Your task to perform on an android device: Open maps Image 0: 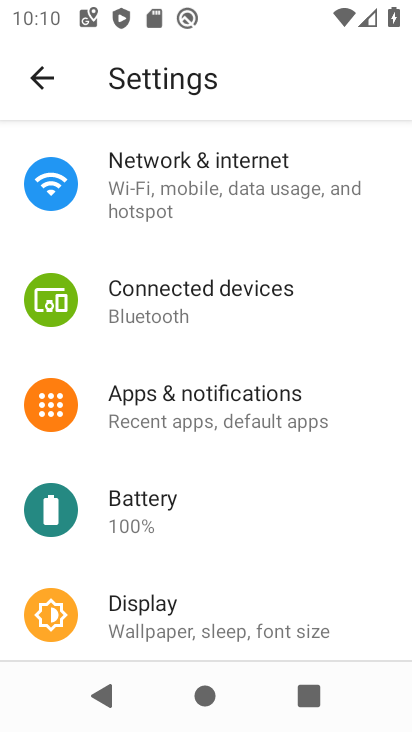
Step 0: press home button
Your task to perform on an android device: Open maps Image 1: 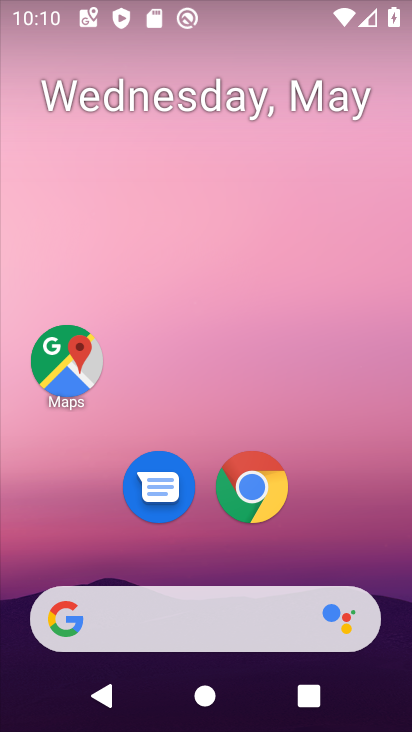
Step 1: drag from (225, 579) to (409, 582)
Your task to perform on an android device: Open maps Image 2: 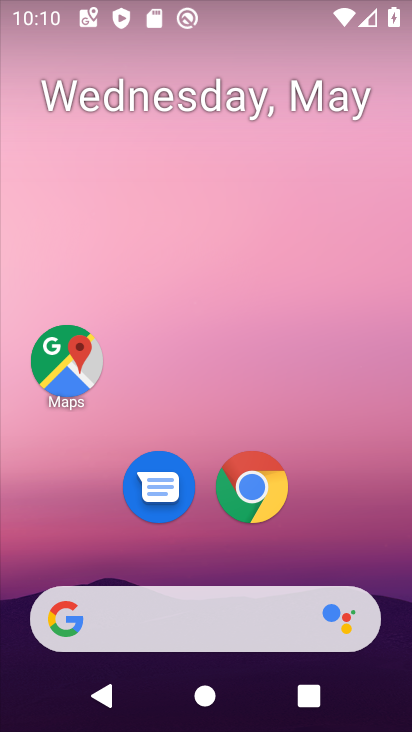
Step 2: click (259, 597)
Your task to perform on an android device: Open maps Image 3: 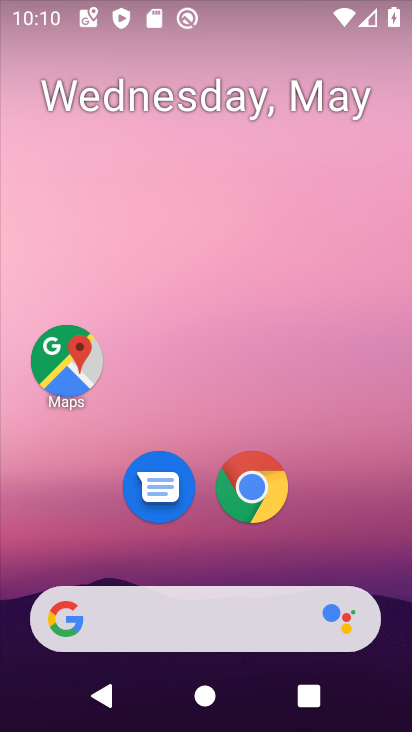
Step 3: drag from (259, 588) to (214, 42)
Your task to perform on an android device: Open maps Image 4: 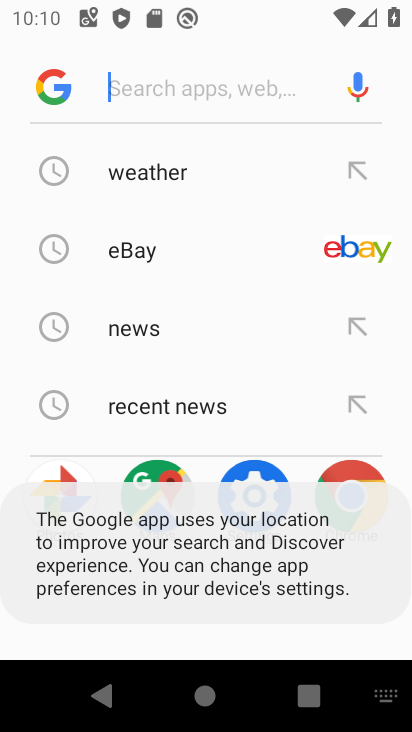
Step 4: press home button
Your task to perform on an android device: Open maps Image 5: 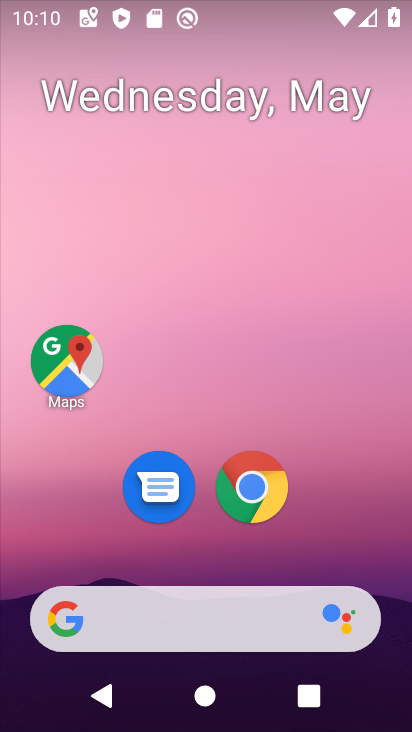
Step 5: click (57, 344)
Your task to perform on an android device: Open maps Image 6: 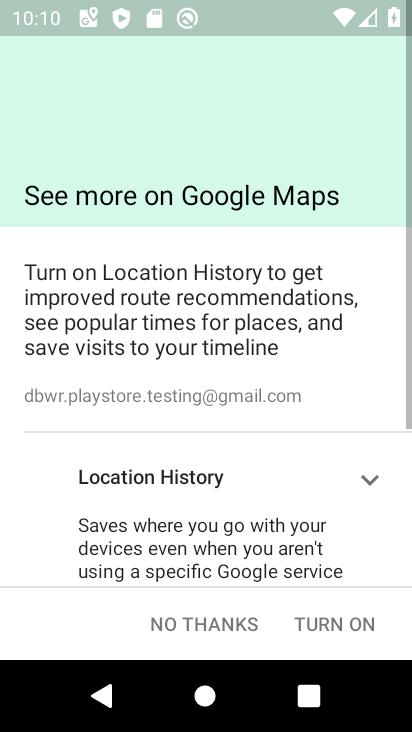
Step 6: click (370, 575)
Your task to perform on an android device: Open maps Image 7: 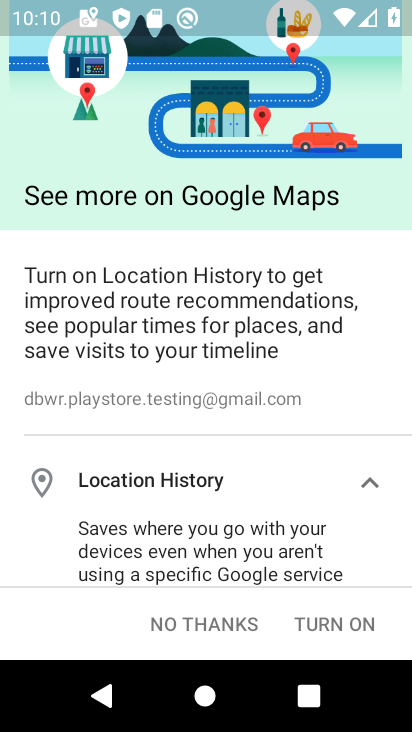
Step 7: click (343, 614)
Your task to perform on an android device: Open maps Image 8: 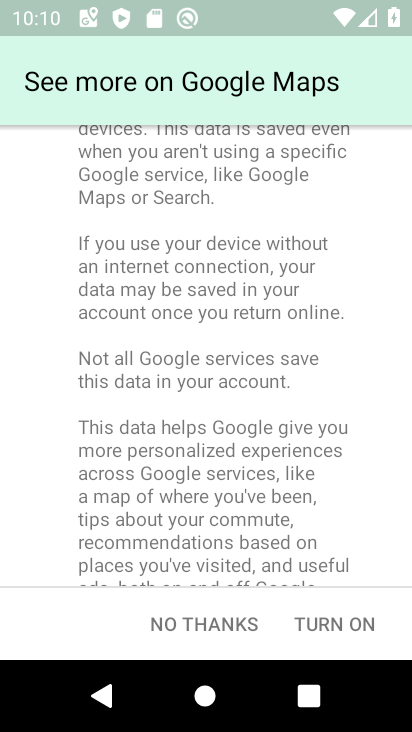
Step 8: click (354, 613)
Your task to perform on an android device: Open maps Image 9: 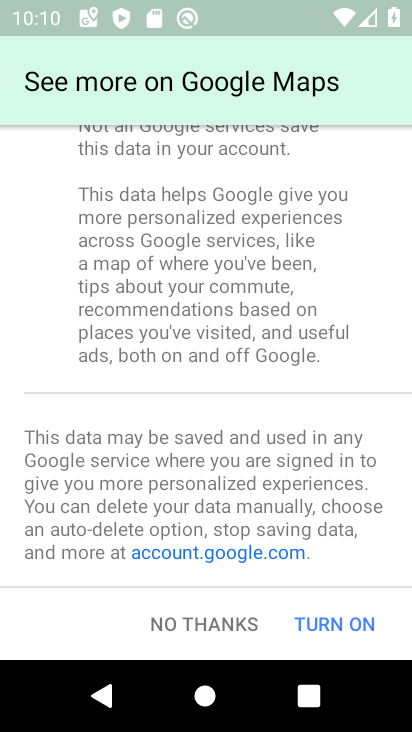
Step 9: click (364, 625)
Your task to perform on an android device: Open maps Image 10: 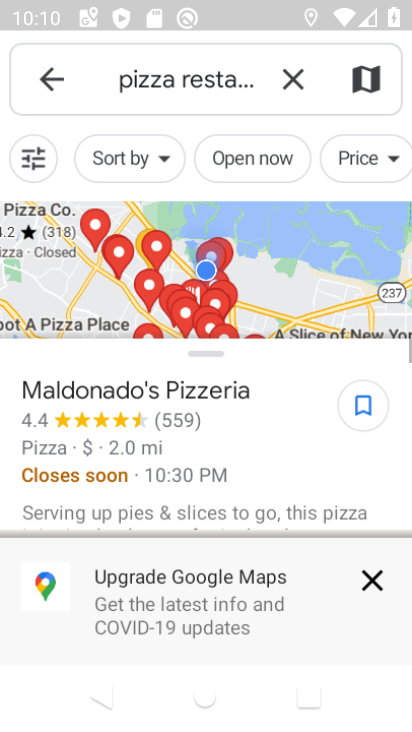
Step 10: task complete